Your task to perform on an android device: Toggle the flashlight Image 0: 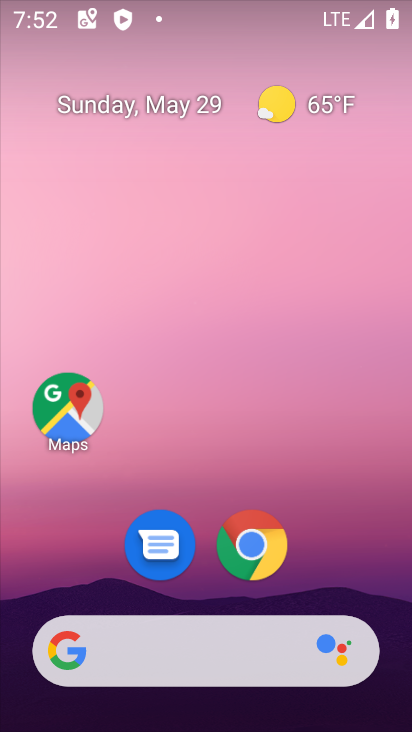
Step 0: drag from (213, 506) to (262, 256)
Your task to perform on an android device: Toggle the flashlight Image 1: 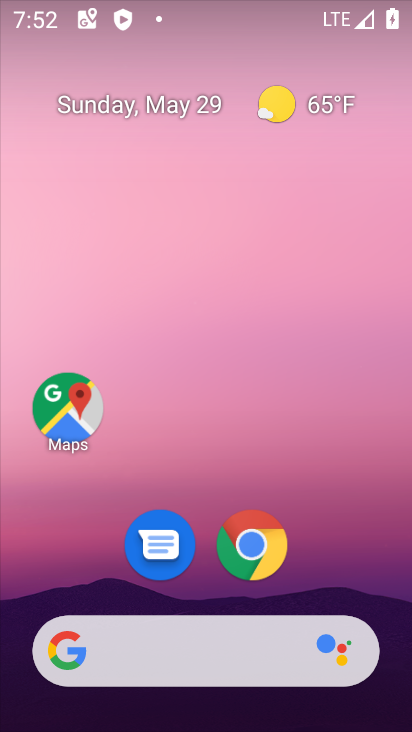
Step 1: drag from (217, 583) to (308, 178)
Your task to perform on an android device: Toggle the flashlight Image 2: 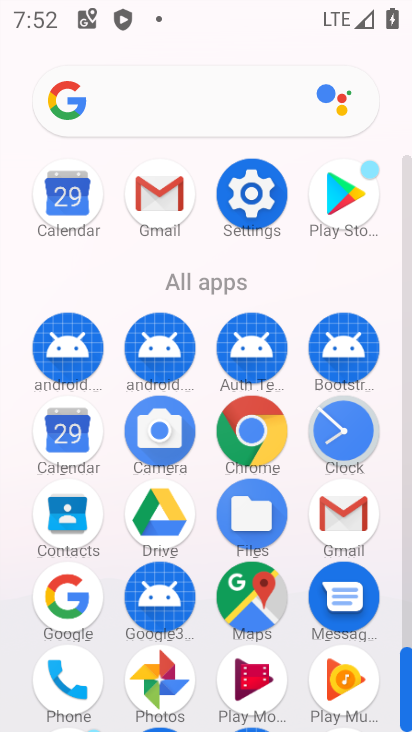
Step 2: click (254, 192)
Your task to perform on an android device: Toggle the flashlight Image 3: 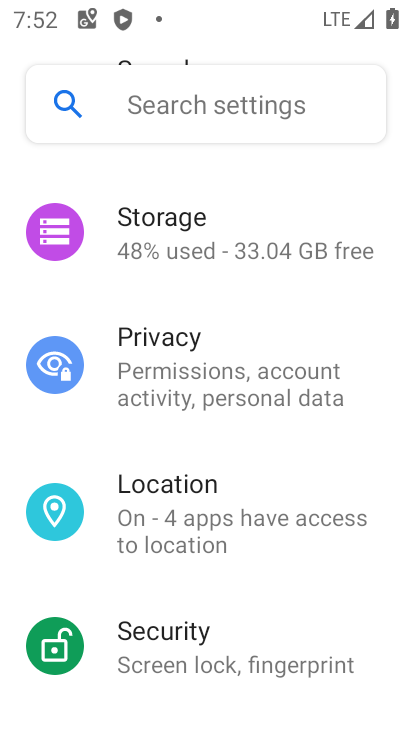
Step 3: drag from (254, 192) to (283, 682)
Your task to perform on an android device: Toggle the flashlight Image 4: 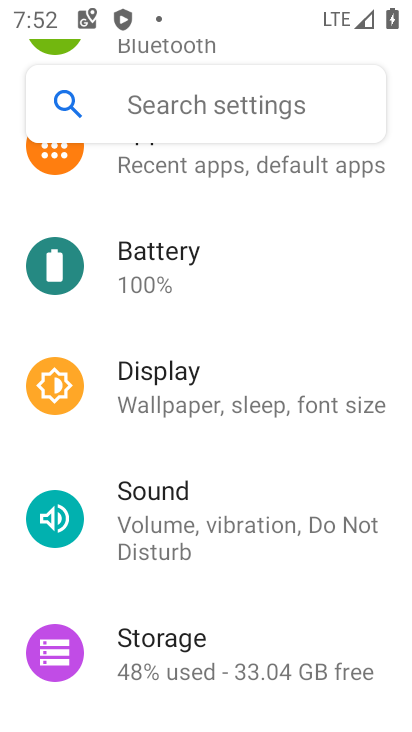
Step 4: click (262, 408)
Your task to perform on an android device: Toggle the flashlight Image 5: 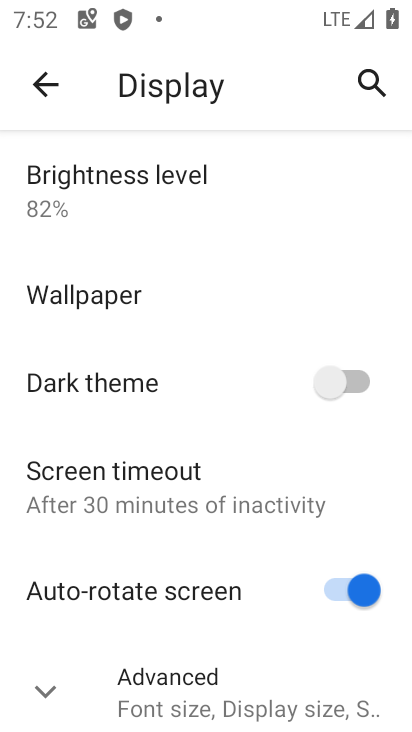
Step 5: drag from (242, 544) to (347, 274)
Your task to perform on an android device: Toggle the flashlight Image 6: 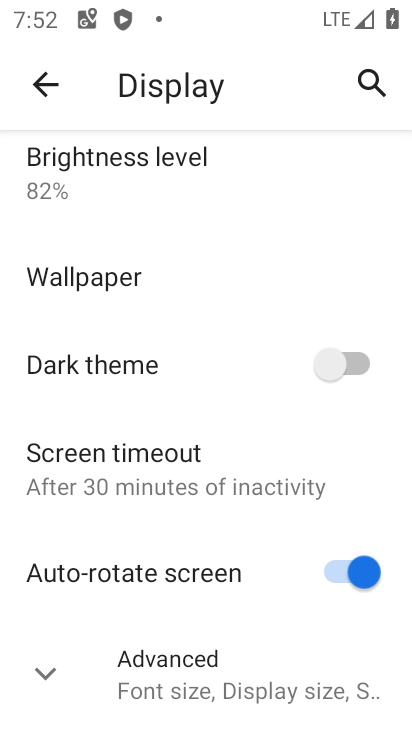
Step 6: click (188, 449)
Your task to perform on an android device: Toggle the flashlight Image 7: 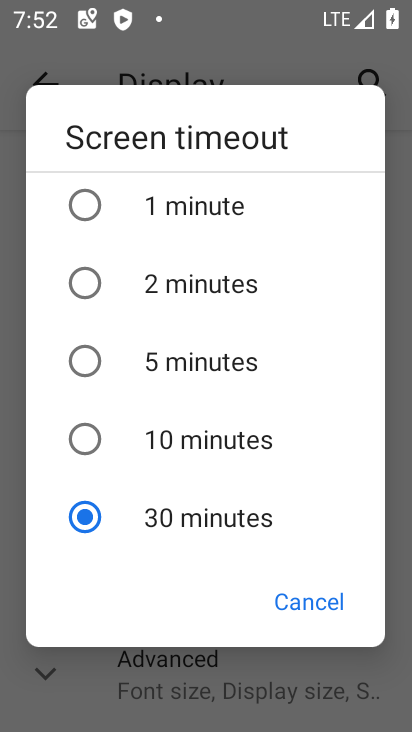
Step 7: click (304, 611)
Your task to perform on an android device: Toggle the flashlight Image 8: 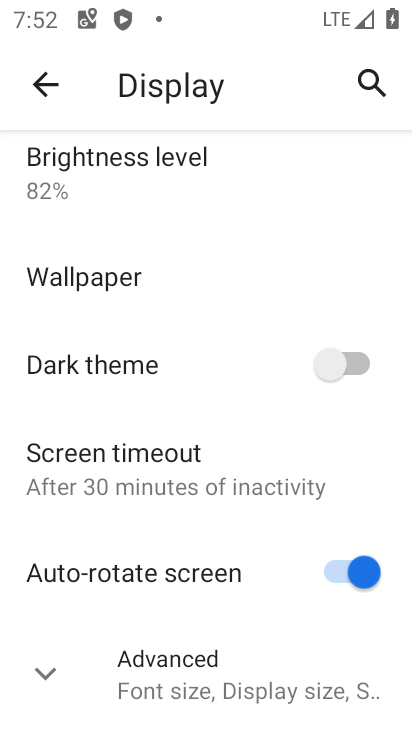
Step 8: drag from (233, 614) to (327, 252)
Your task to perform on an android device: Toggle the flashlight Image 9: 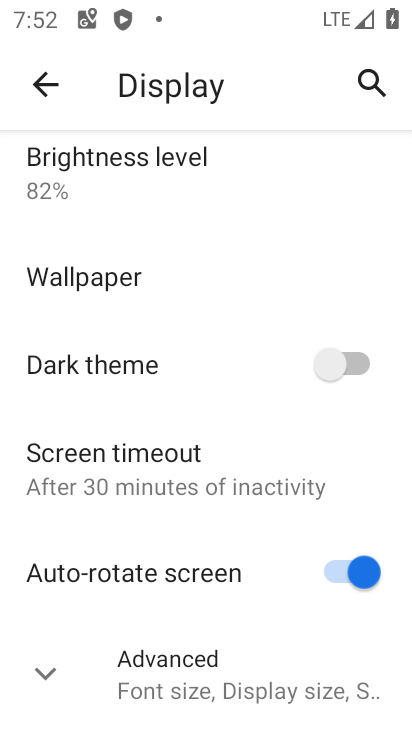
Step 9: click (41, 671)
Your task to perform on an android device: Toggle the flashlight Image 10: 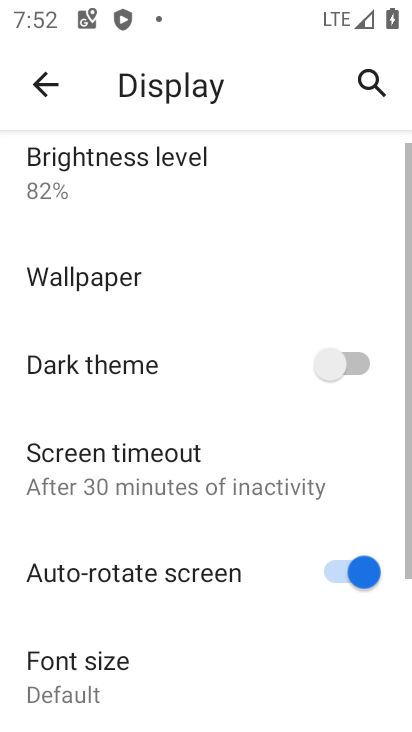
Step 10: task complete